Your task to perform on an android device: What's the weather today? Image 0: 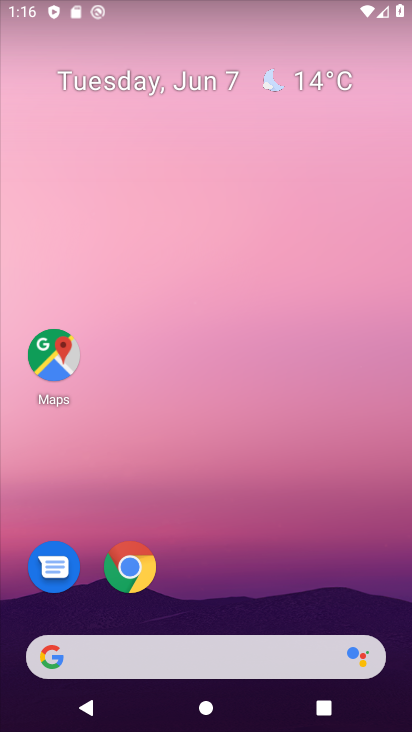
Step 0: click (256, 657)
Your task to perform on an android device: What's the weather today? Image 1: 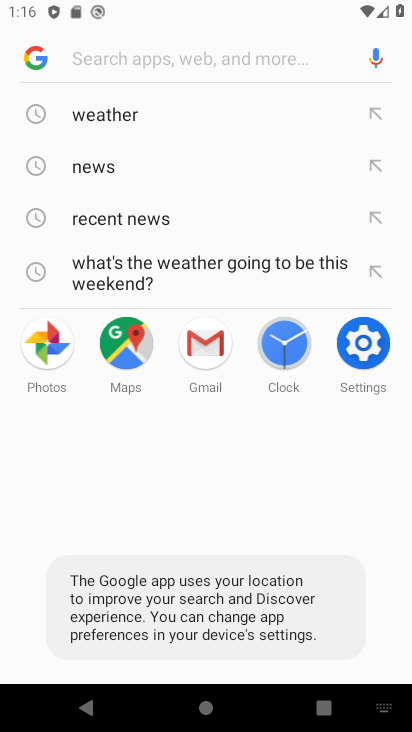
Step 1: click (143, 120)
Your task to perform on an android device: What's the weather today? Image 2: 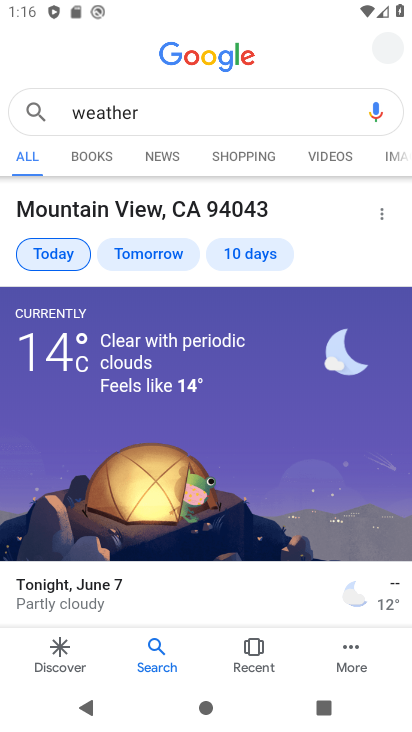
Step 2: task complete